Your task to perform on an android device: toggle pop-ups in chrome Image 0: 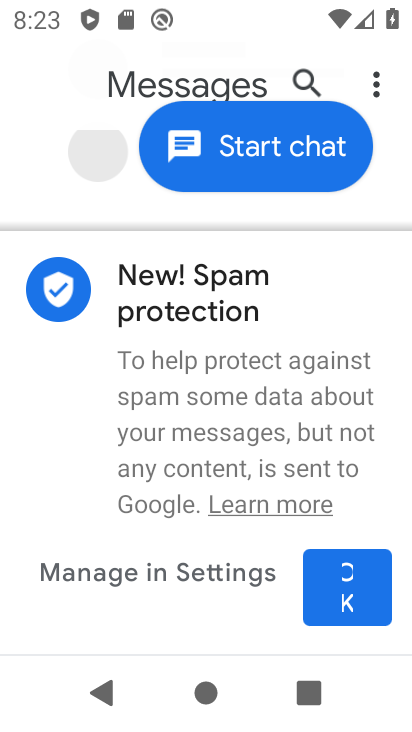
Step 0: press home button
Your task to perform on an android device: toggle pop-ups in chrome Image 1: 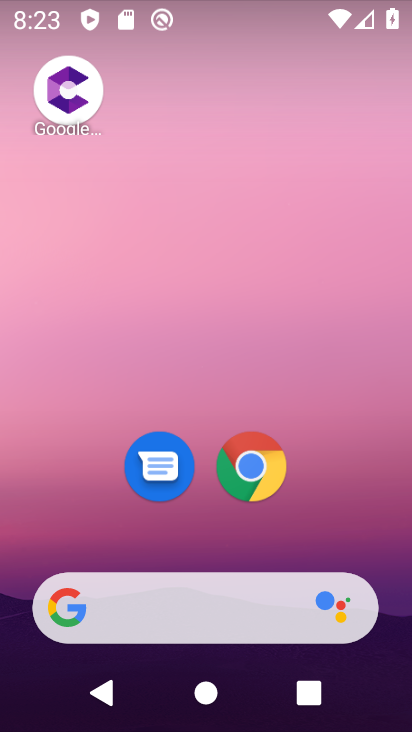
Step 1: click (246, 468)
Your task to perform on an android device: toggle pop-ups in chrome Image 2: 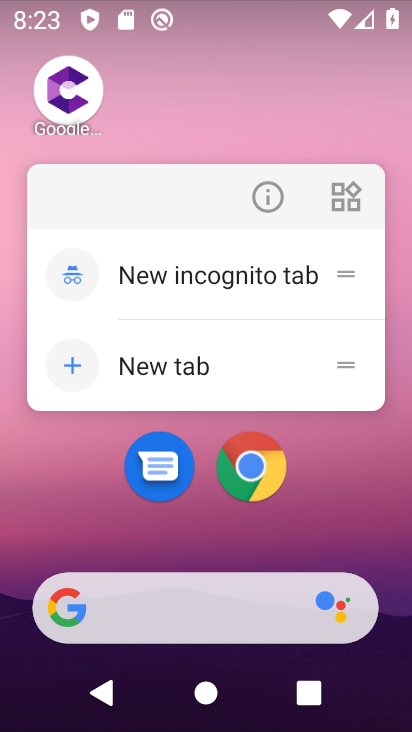
Step 2: click (246, 468)
Your task to perform on an android device: toggle pop-ups in chrome Image 3: 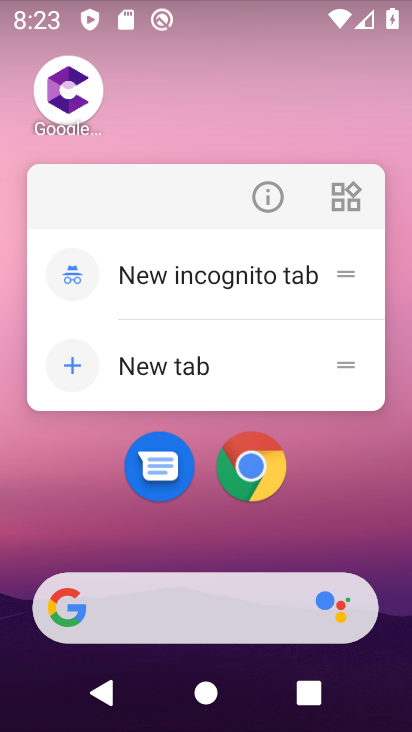
Step 3: click (245, 466)
Your task to perform on an android device: toggle pop-ups in chrome Image 4: 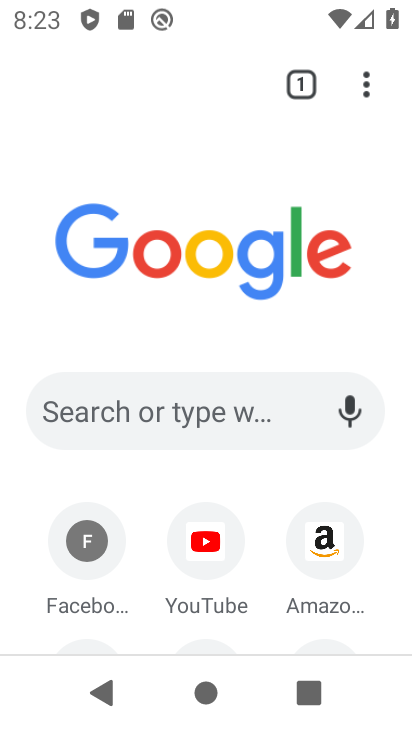
Step 4: click (360, 82)
Your task to perform on an android device: toggle pop-ups in chrome Image 5: 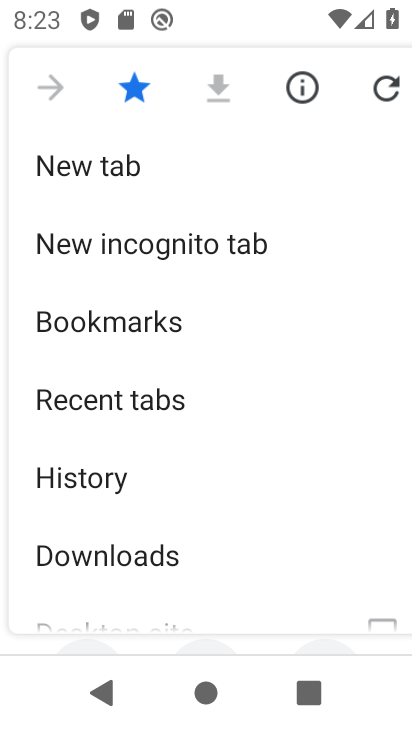
Step 5: drag from (136, 566) to (198, 145)
Your task to perform on an android device: toggle pop-ups in chrome Image 6: 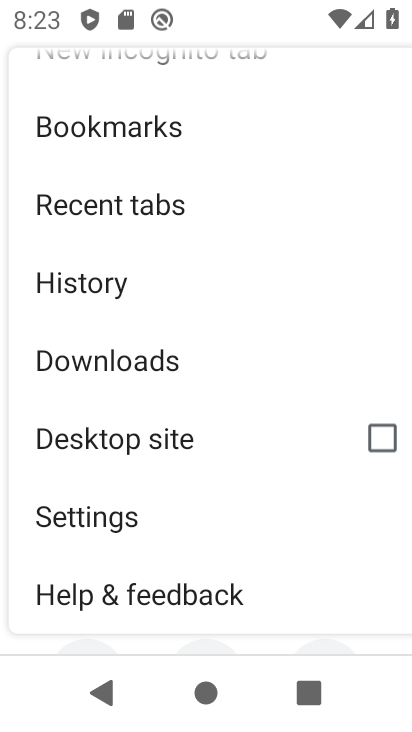
Step 6: click (111, 525)
Your task to perform on an android device: toggle pop-ups in chrome Image 7: 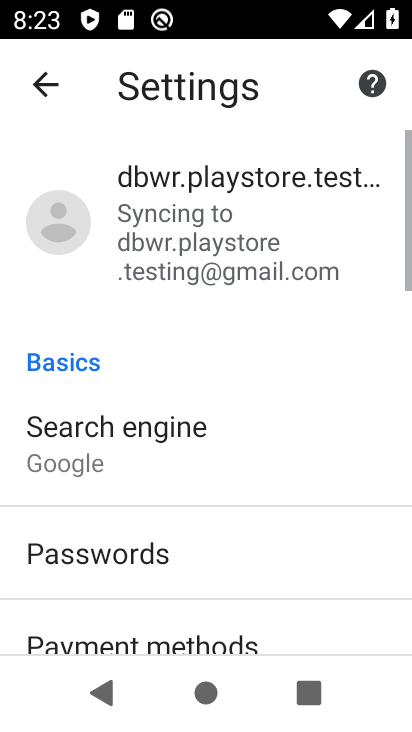
Step 7: drag from (138, 564) to (217, 119)
Your task to perform on an android device: toggle pop-ups in chrome Image 8: 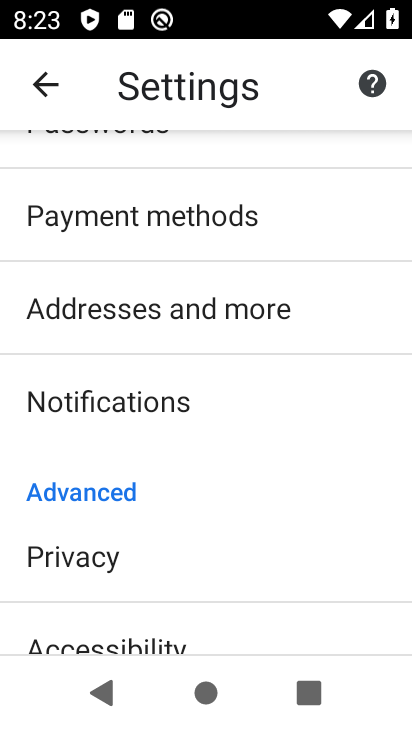
Step 8: drag from (112, 564) to (140, 155)
Your task to perform on an android device: toggle pop-ups in chrome Image 9: 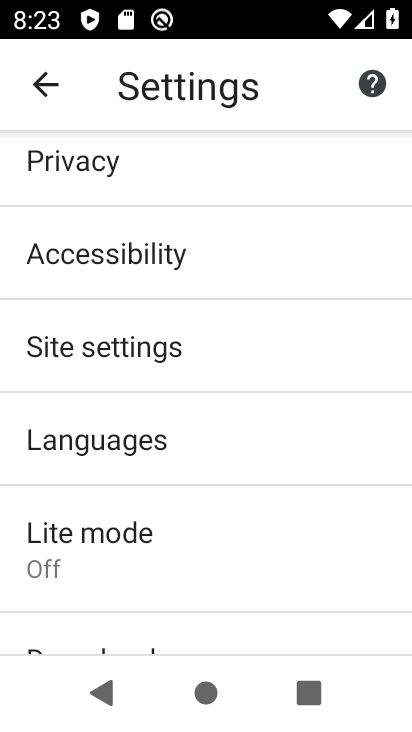
Step 9: click (176, 338)
Your task to perform on an android device: toggle pop-ups in chrome Image 10: 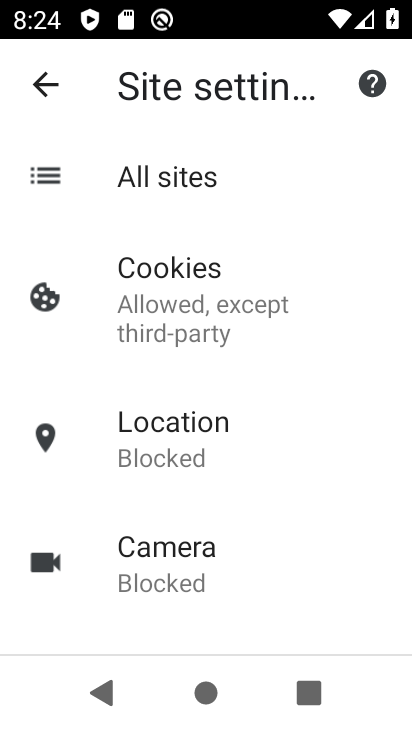
Step 10: drag from (159, 519) to (175, 170)
Your task to perform on an android device: toggle pop-ups in chrome Image 11: 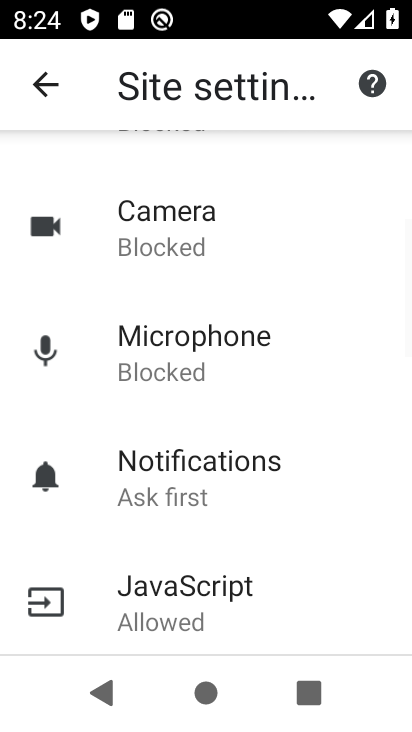
Step 11: drag from (189, 559) to (223, 199)
Your task to perform on an android device: toggle pop-ups in chrome Image 12: 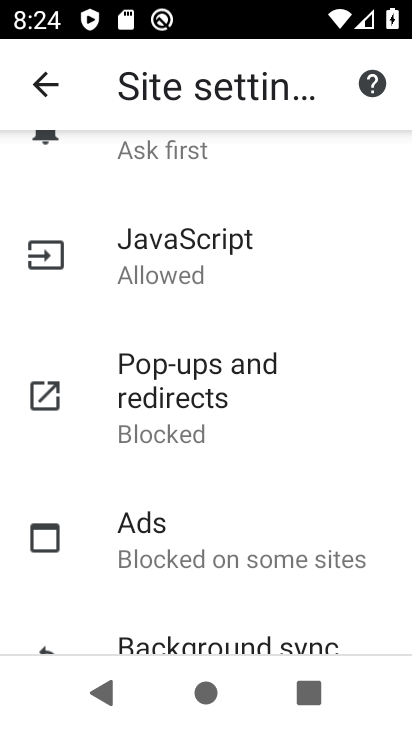
Step 12: drag from (188, 595) to (230, 460)
Your task to perform on an android device: toggle pop-ups in chrome Image 13: 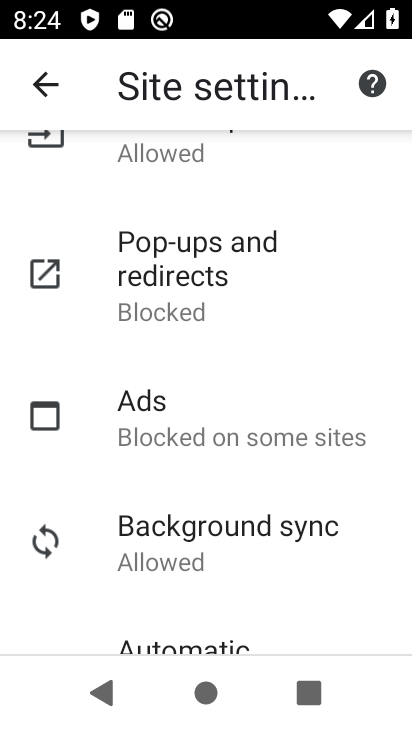
Step 13: click (203, 296)
Your task to perform on an android device: toggle pop-ups in chrome Image 14: 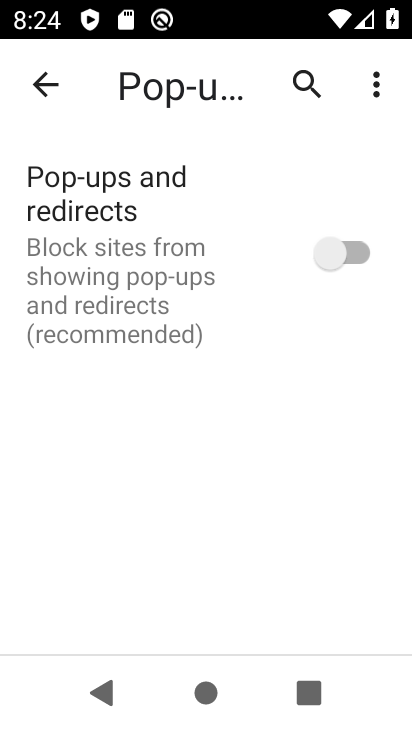
Step 14: click (323, 245)
Your task to perform on an android device: toggle pop-ups in chrome Image 15: 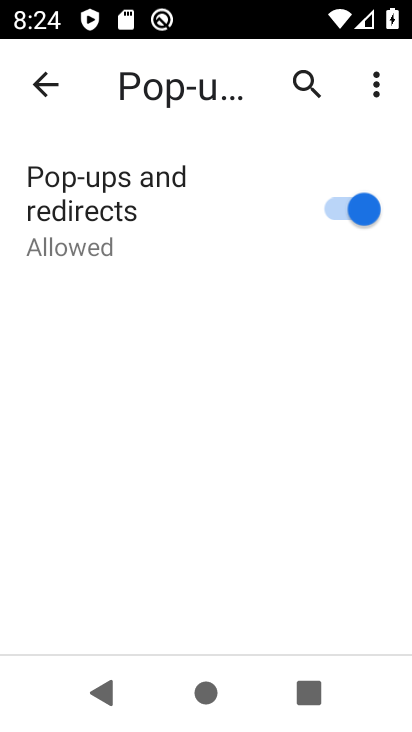
Step 15: task complete